Your task to perform on an android device: turn off smart reply in the gmail app Image 0: 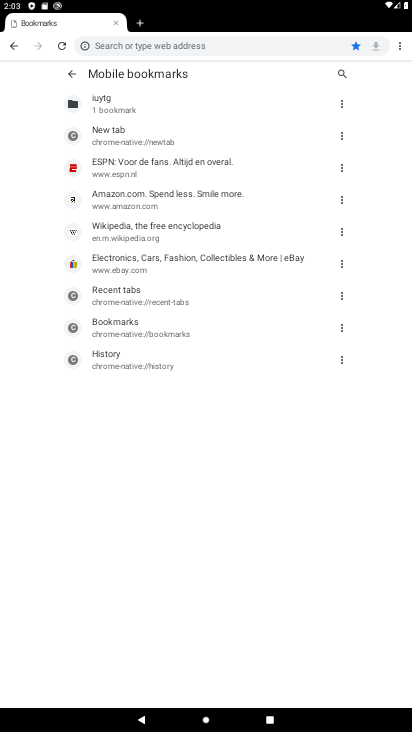
Step 0: press home button
Your task to perform on an android device: turn off smart reply in the gmail app Image 1: 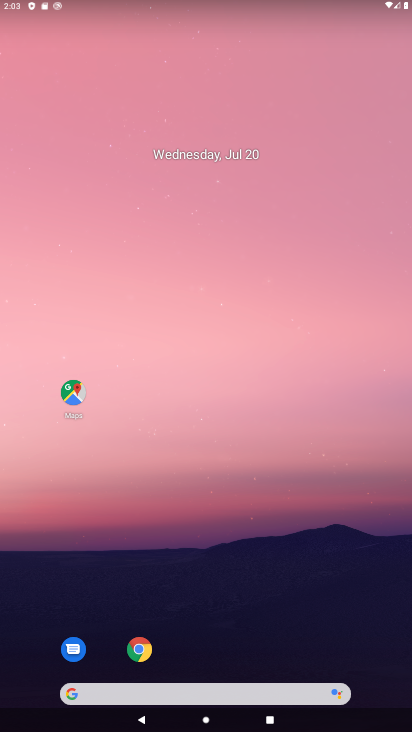
Step 1: drag from (303, 595) to (270, 219)
Your task to perform on an android device: turn off smart reply in the gmail app Image 2: 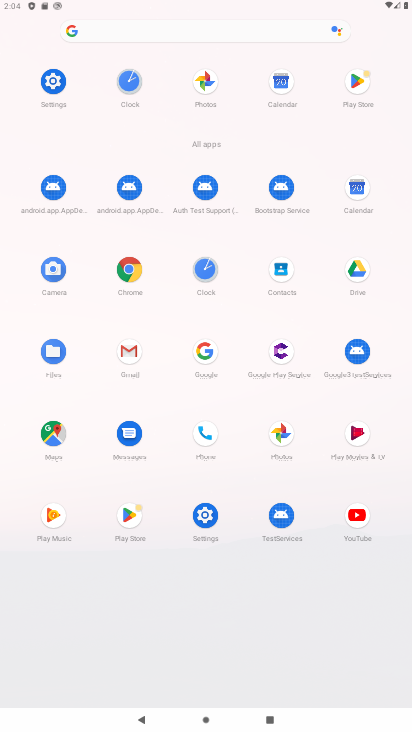
Step 2: click (131, 353)
Your task to perform on an android device: turn off smart reply in the gmail app Image 3: 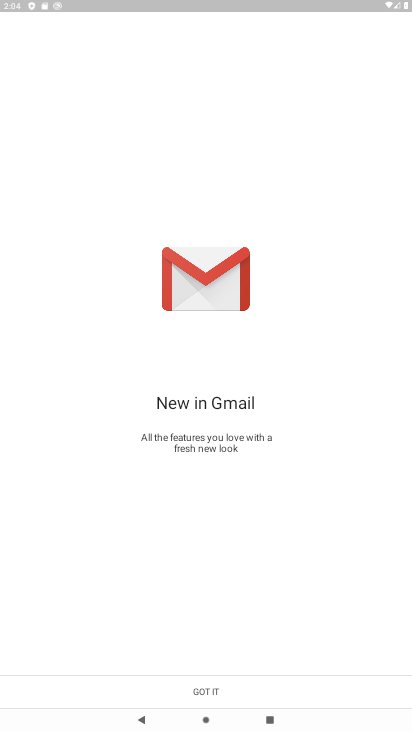
Step 3: click (204, 693)
Your task to perform on an android device: turn off smart reply in the gmail app Image 4: 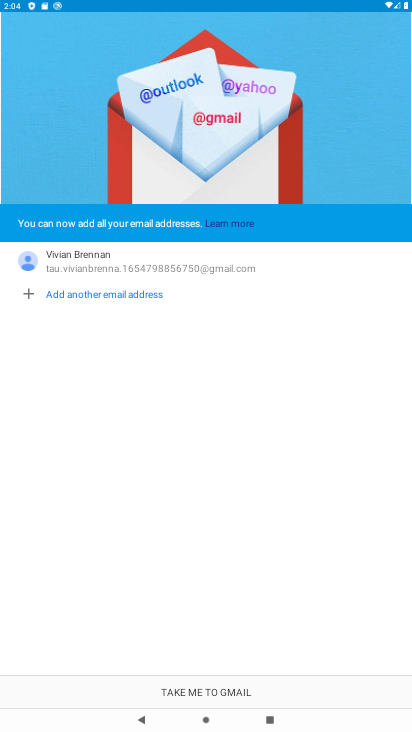
Step 4: click (204, 693)
Your task to perform on an android device: turn off smart reply in the gmail app Image 5: 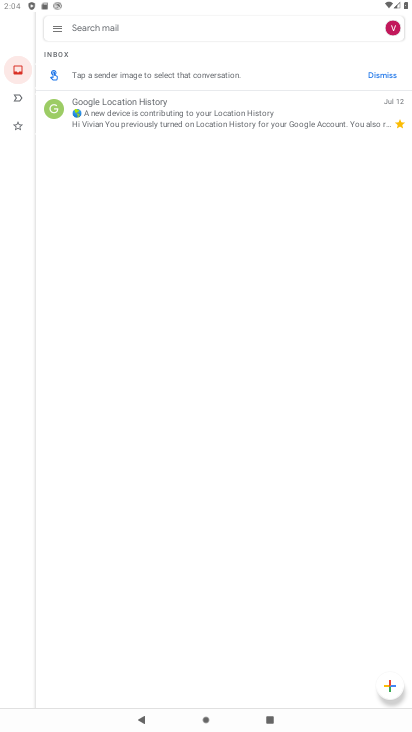
Step 5: click (390, 28)
Your task to perform on an android device: turn off smart reply in the gmail app Image 6: 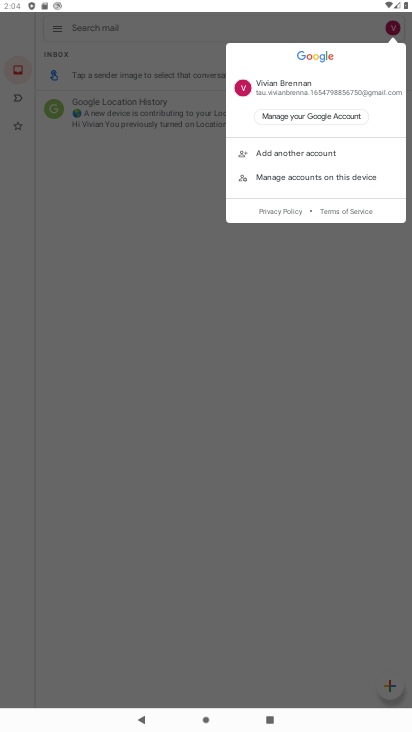
Step 6: click (253, 302)
Your task to perform on an android device: turn off smart reply in the gmail app Image 7: 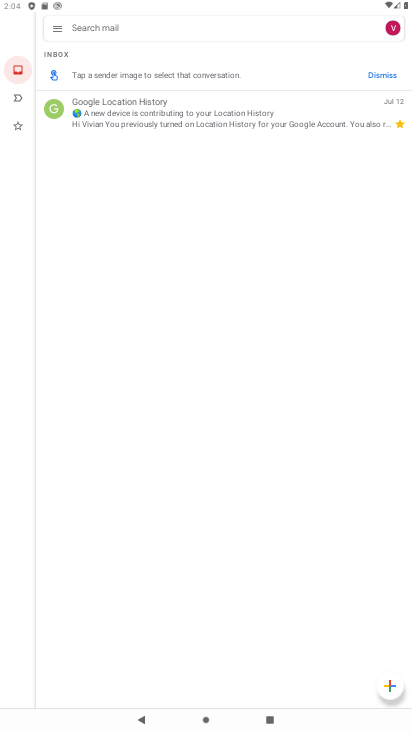
Step 7: task complete